Your task to perform on an android device: add a contact Image 0: 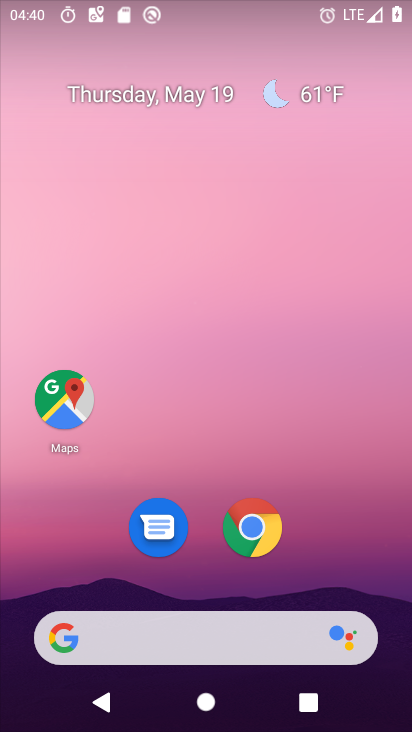
Step 0: drag from (240, 542) to (292, 47)
Your task to perform on an android device: add a contact Image 1: 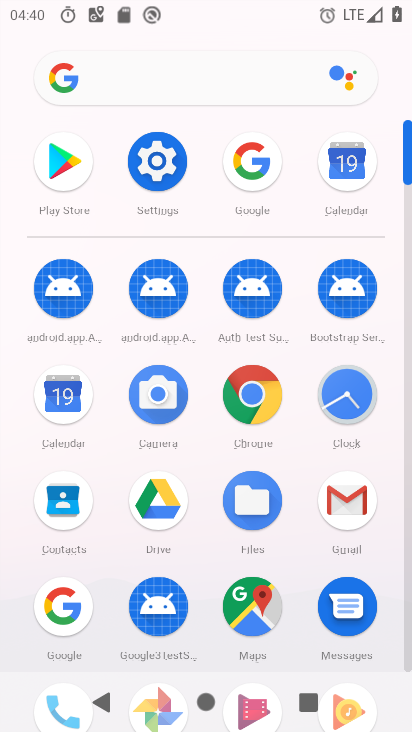
Step 1: click (46, 508)
Your task to perform on an android device: add a contact Image 2: 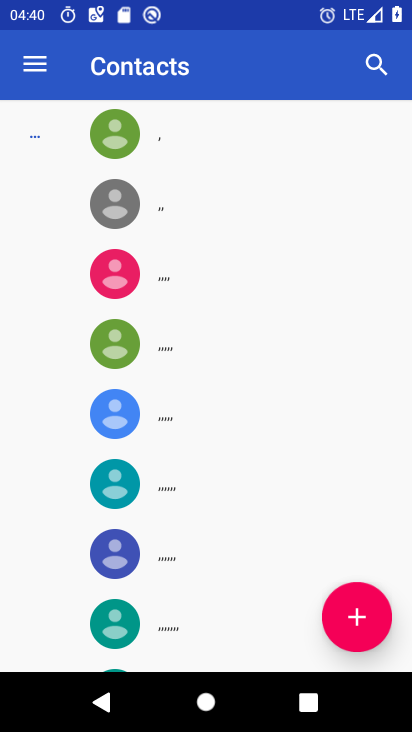
Step 2: click (340, 593)
Your task to perform on an android device: add a contact Image 3: 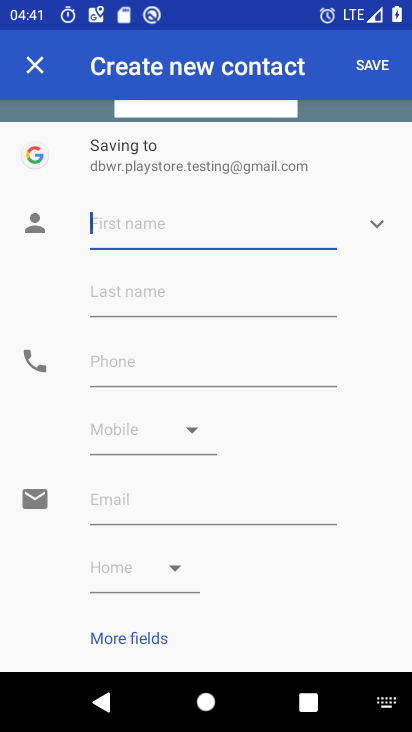
Step 3: type "cgcgc"
Your task to perform on an android device: add a contact Image 4: 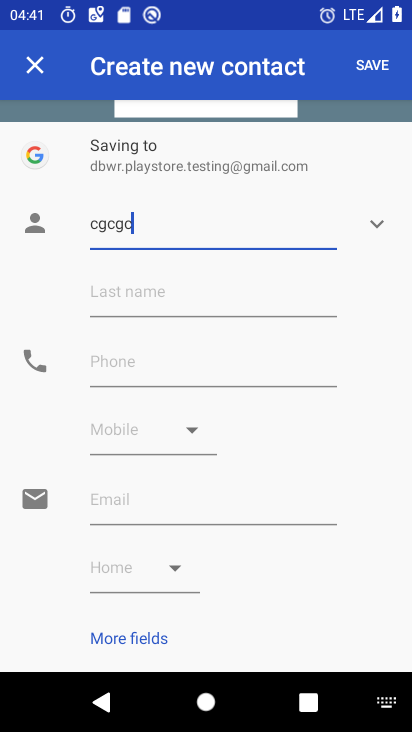
Step 4: click (123, 367)
Your task to perform on an android device: add a contact Image 5: 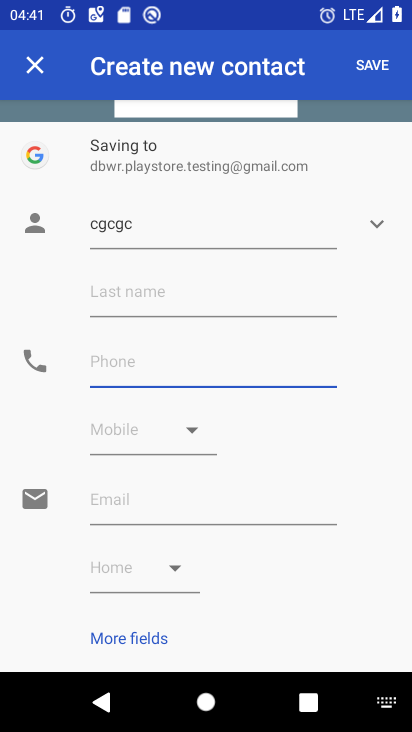
Step 5: type "68686"
Your task to perform on an android device: add a contact Image 6: 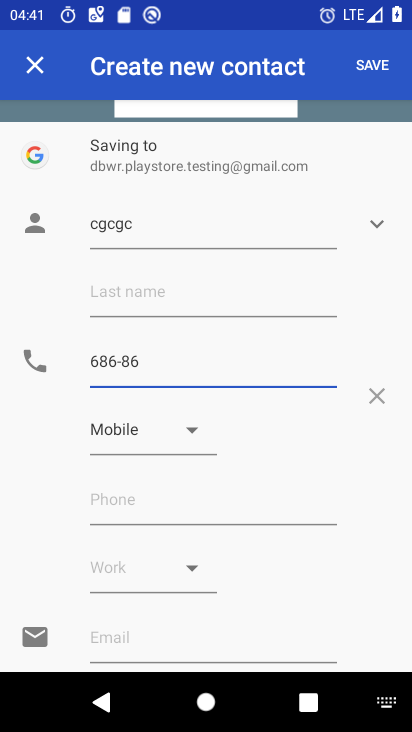
Step 6: click (372, 67)
Your task to perform on an android device: add a contact Image 7: 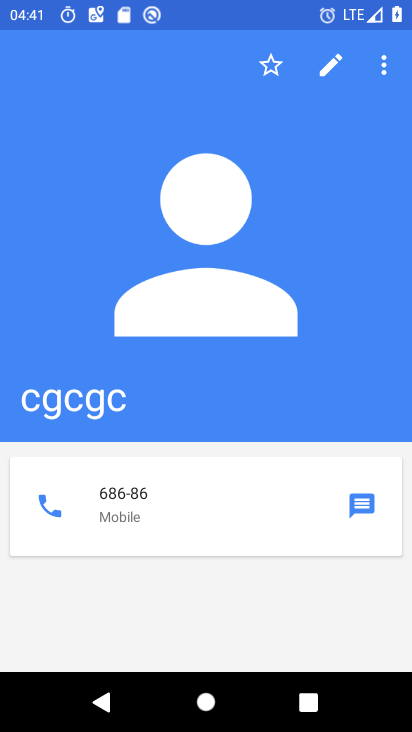
Step 7: task complete